Your task to perform on an android device: Open Google Image 0: 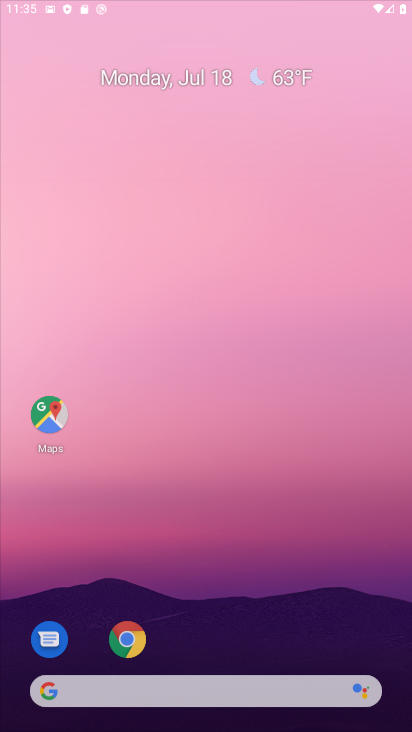
Step 0: drag from (213, 506) to (183, 64)
Your task to perform on an android device: Open Google Image 1: 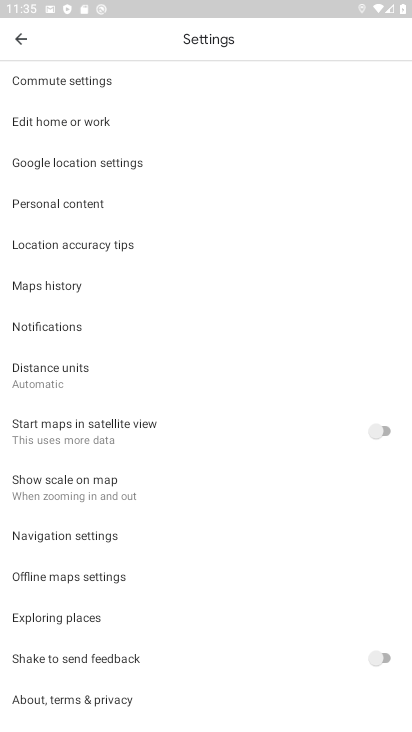
Step 1: press home button
Your task to perform on an android device: Open Google Image 2: 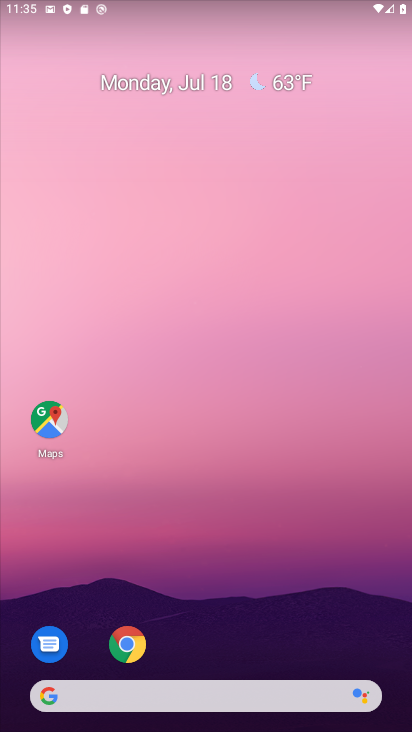
Step 2: click (57, 684)
Your task to perform on an android device: Open Google Image 3: 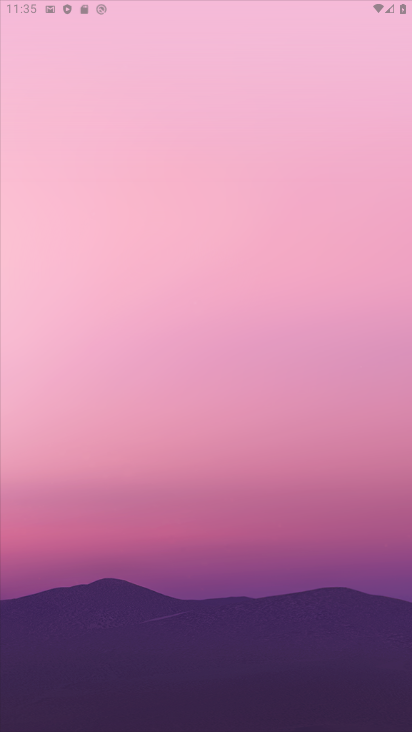
Step 3: click (46, 693)
Your task to perform on an android device: Open Google Image 4: 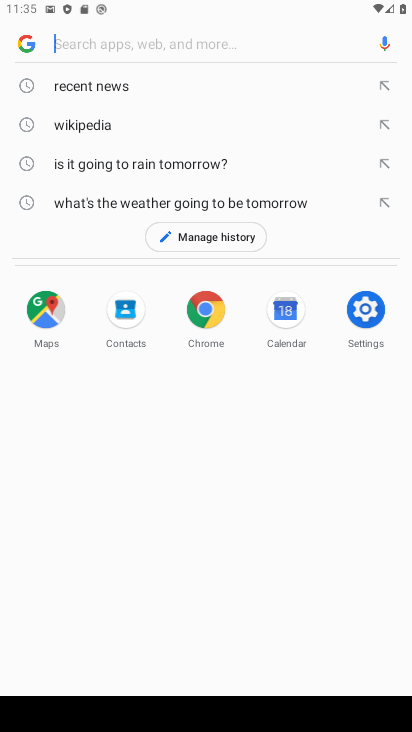
Step 4: click (36, 41)
Your task to perform on an android device: Open Google Image 5: 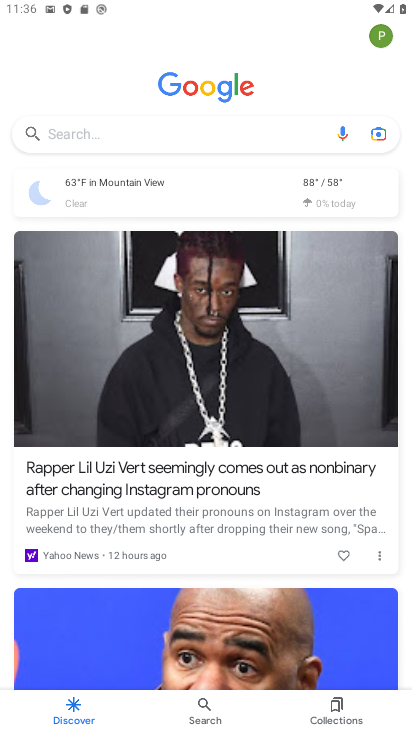
Step 5: task complete